Your task to perform on an android device: Go to Yahoo.com Image 0: 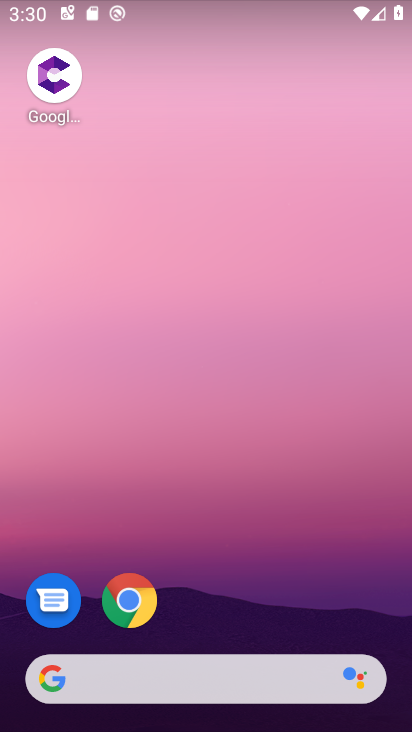
Step 0: drag from (211, 690) to (127, 126)
Your task to perform on an android device: Go to Yahoo.com Image 1: 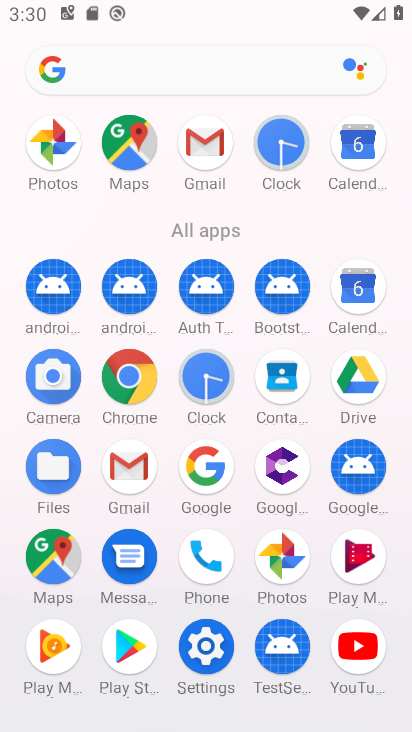
Step 1: click (128, 389)
Your task to perform on an android device: Go to Yahoo.com Image 2: 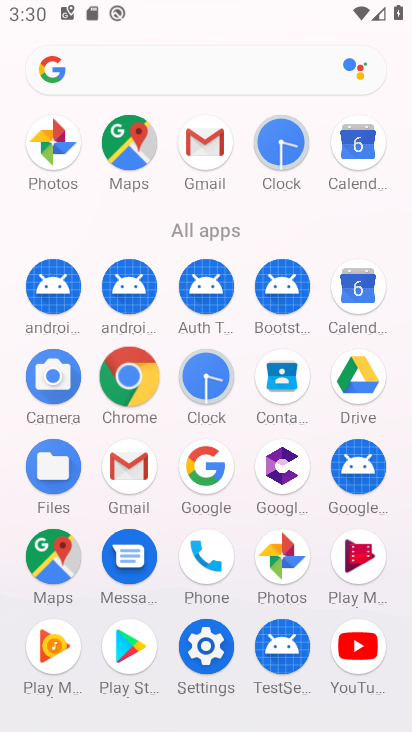
Step 2: click (125, 388)
Your task to perform on an android device: Go to Yahoo.com Image 3: 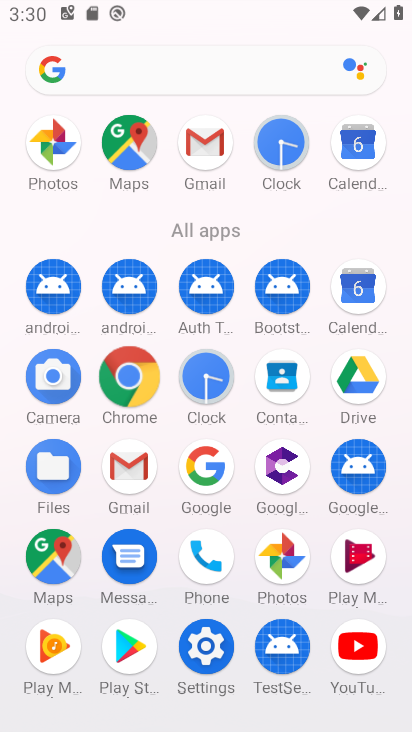
Step 3: click (122, 391)
Your task to perform on an android device: Go to Yahoo.com Image 4: 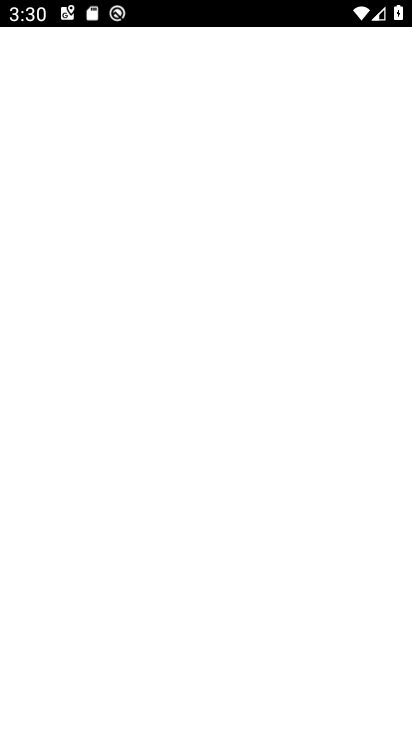
Step 4: click (142, 368)
Your task to perform on an android device: Go to Yahoo.com Image 5: 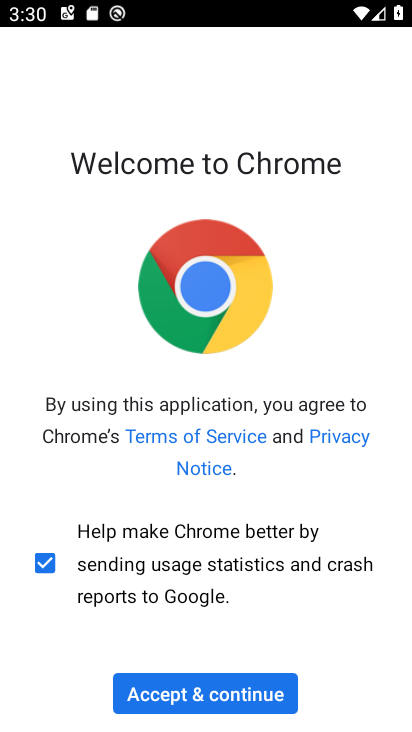
Step 5: click (208, 717)
Your task to perform on an android device: Go to Yahoo.com Image 6: 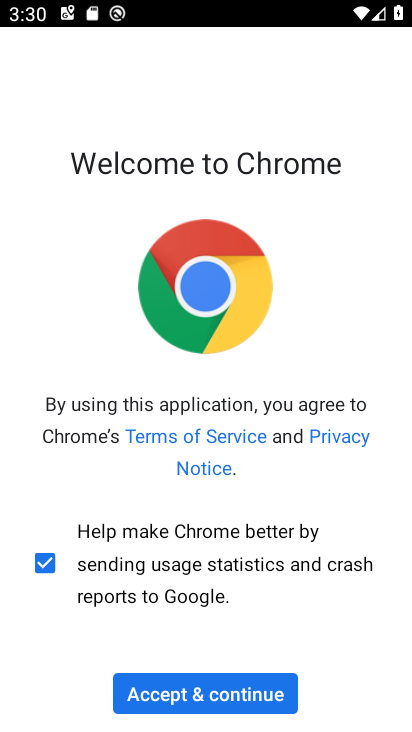
Step 6: click (214, 685)
Your task to perform on an android device: Go to Yahoo.com Image 7: 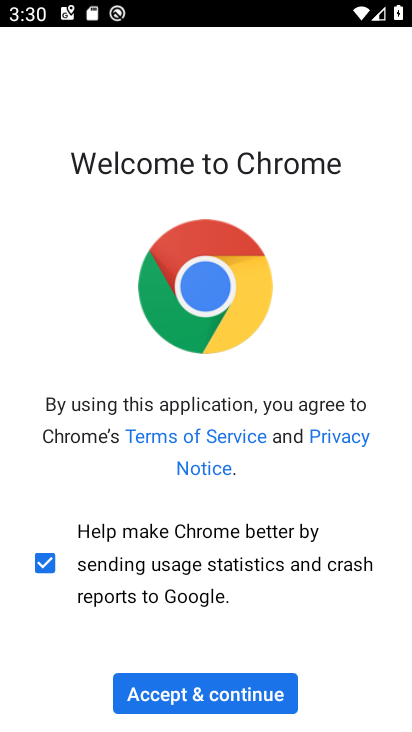
Step 7: click (220, 686)
Your task to perform on an android device: Go to Yahoo.com Image 8: 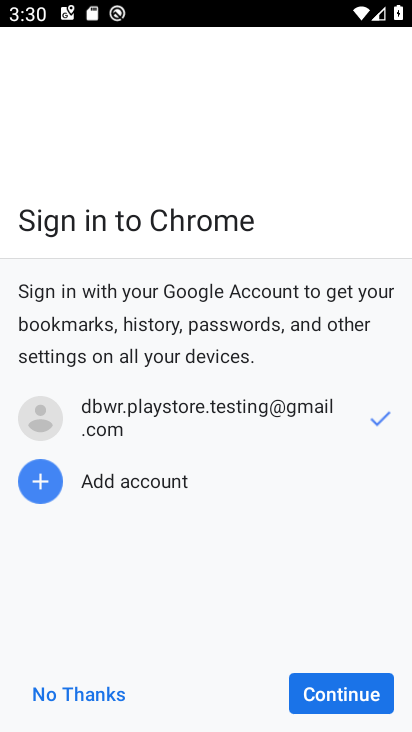
Step 8: click (220, 696)
Your task to perform on an android device: Go to Yahoo.com Image 9: 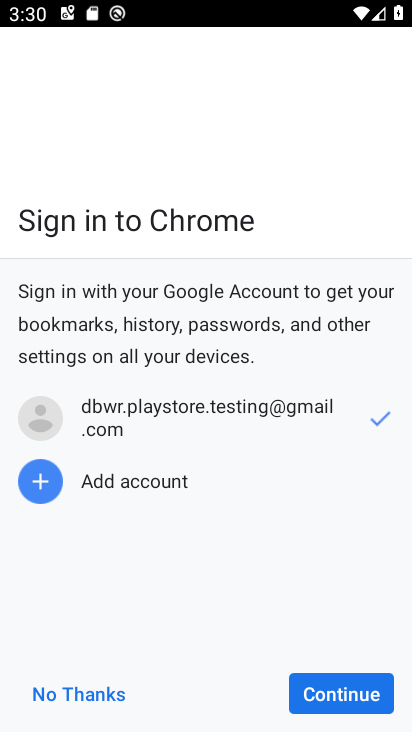
Step 9: click (229, 702)
Your task to perform on an android device: Go to Yahoo.com Image 10: 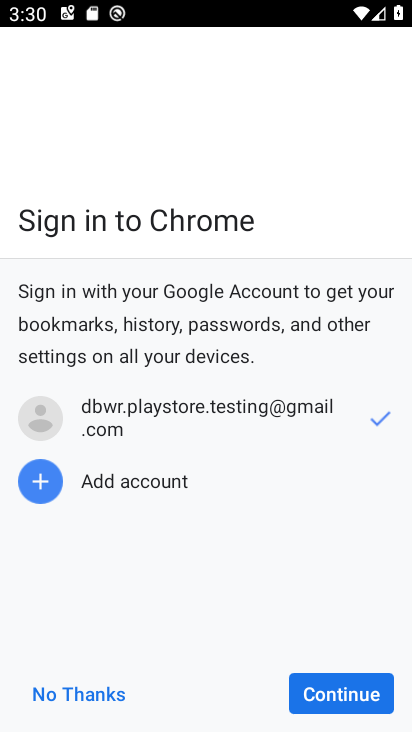
Step 10: click (356, 697)
Your task to perform on an android device: Go to Yahoo.com Image 11: 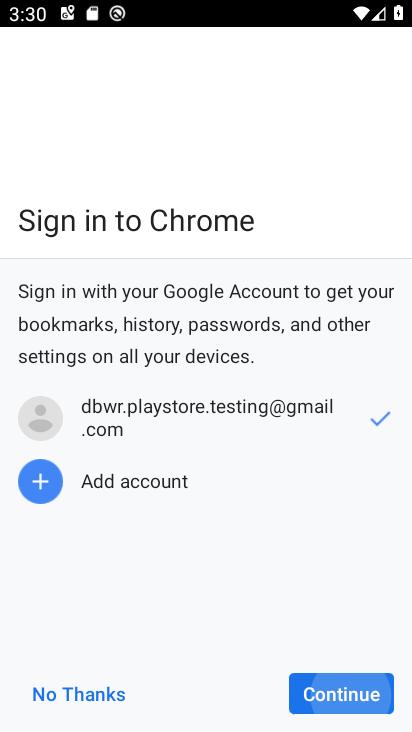
Step 11: click (354, 697)
Your task to perform on an android device: Go to Yahoo.com Image 12: 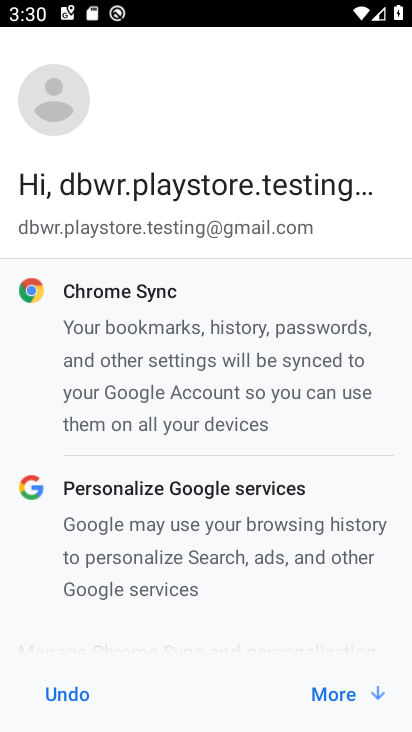
Step 12: click (357, 699)
Your task to perform on an android device: Go to Yahoo.com Image 13: 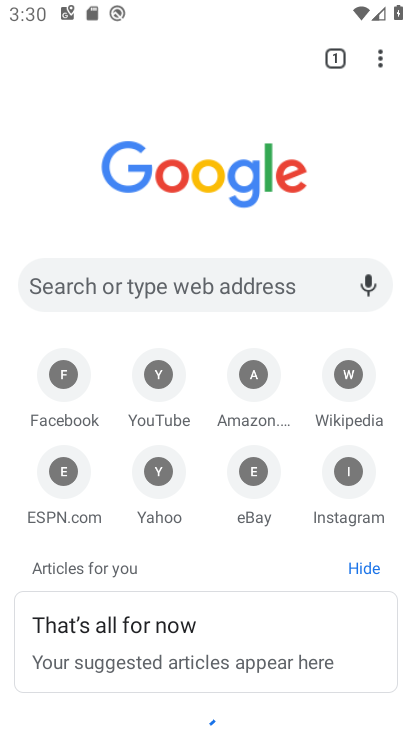
Step 13: click (162, 480)
Your task to perform on an android device: Go to Yahoo.com Image 14: 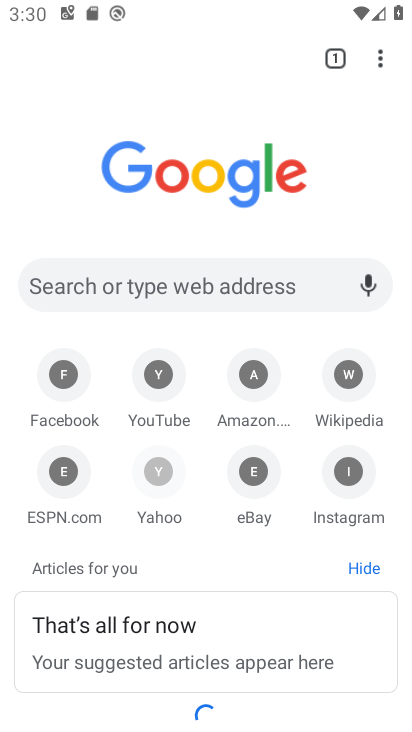
Step 14: click (158, 470)
Your task to perform on an android device: Go to Yahoo.com Image 15: 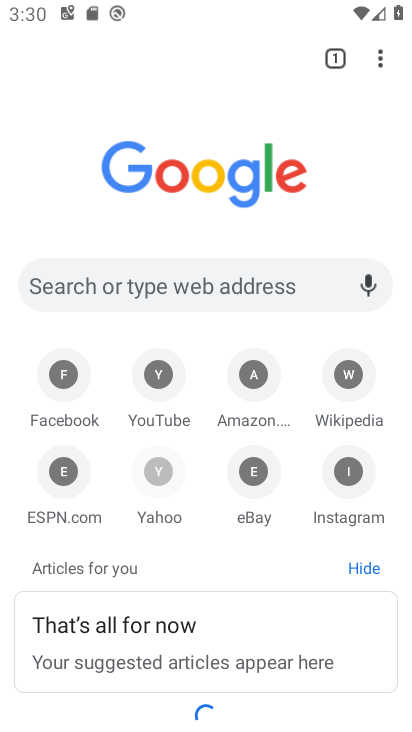
Step 15: click (158, 470)
Your task to perform on an android device: Go to Yahoo.com Image 16: 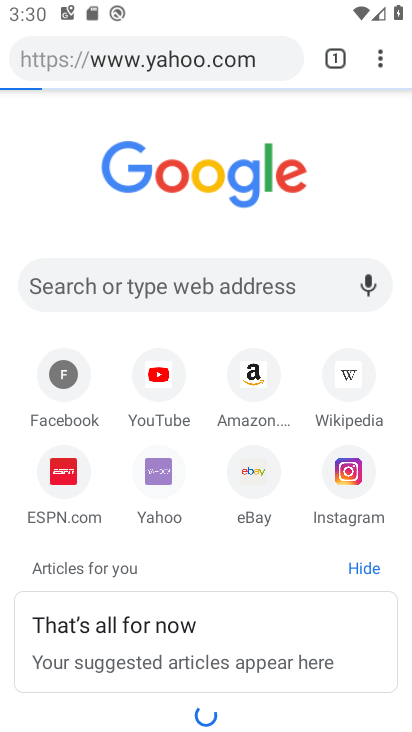
Step 16: click (158, 470)
Your task to perform on an android device: Go to Yahoo.com Image 17: 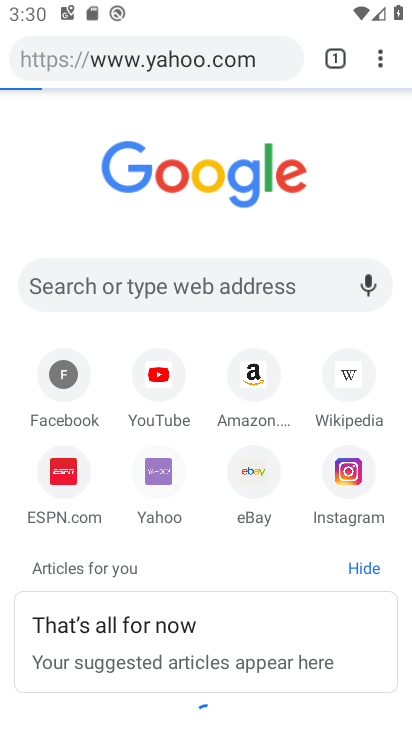
Step 17: click (154, 472)
Your task to perform on an android device: Go to Yahoo.com Image 18: 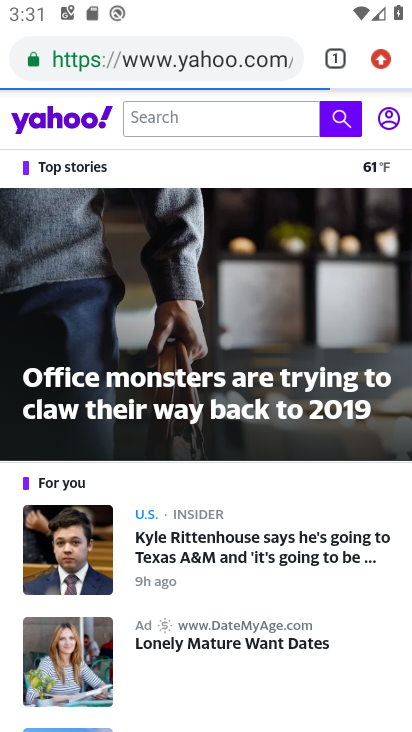
Step 18: task complete